Your task to perform on an android device: find snoozed emails in the gmail app Image 0: 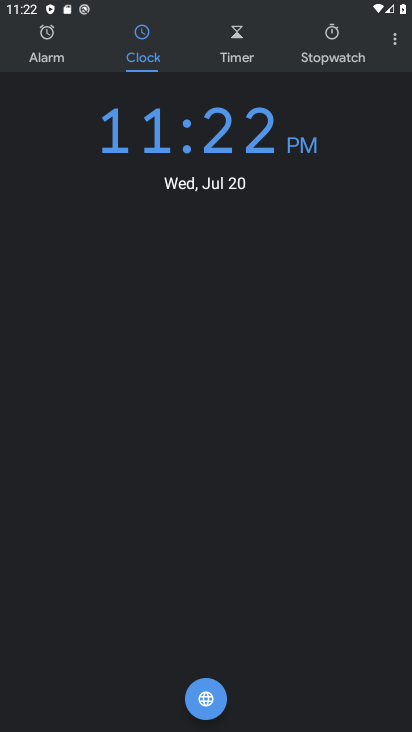
Step 0: press home button
Your task to perform on an android device: find snoozed emails in the gmail app Image 1: 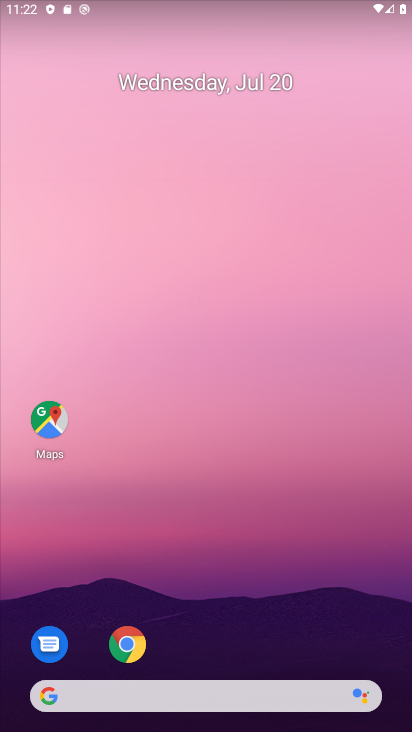
Step 1: drag from (115, 719) to (144, 215)
Your task to perform on an android device: find snoozed emails in the gmail app Image 2: 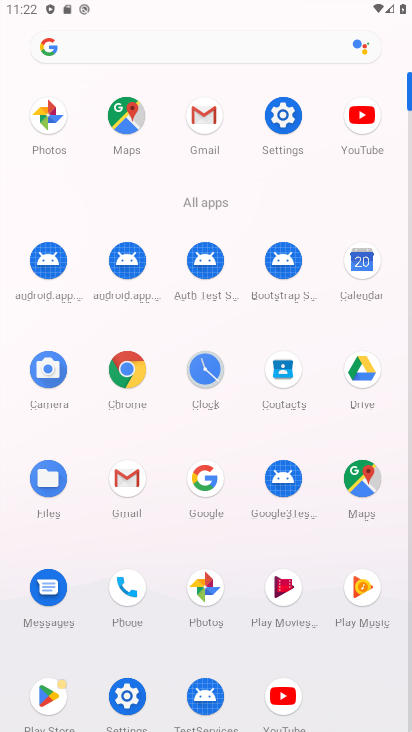
Step 2: click (203, 115)
Your task to perform on an android device: find snoozed emails in the gmail app Image 3: 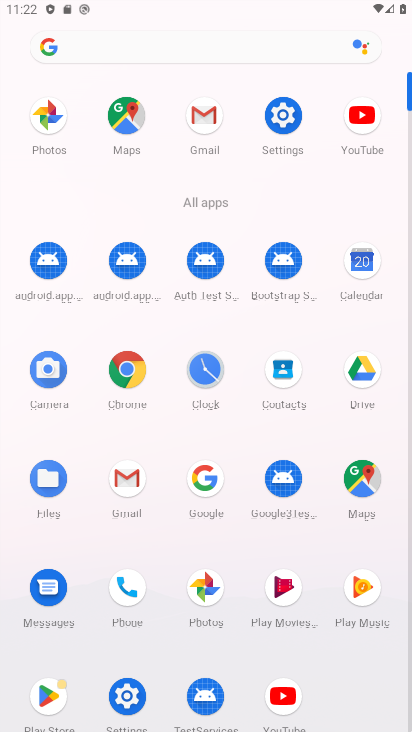
Step 3: click (203, 115)
Your task to perform on an android device: find snoozed emails in the gmail app Image 4: 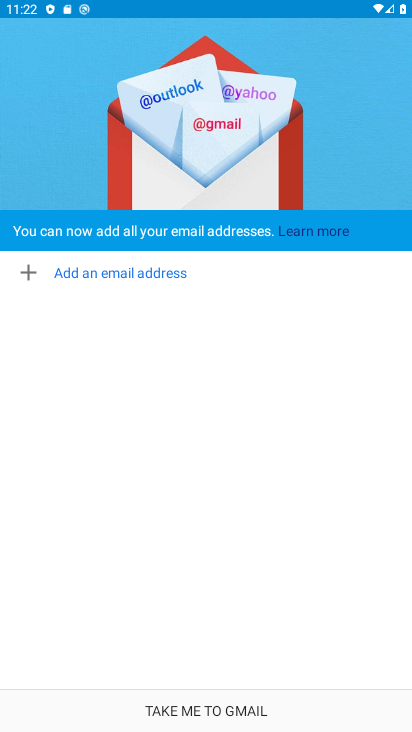
Step 4: click (223, 714)
Your task to perform on an android device: find snoozed emails in the gmail app Image 5: 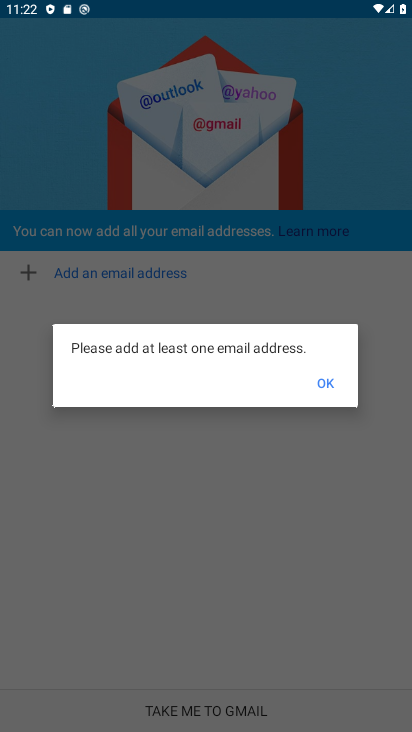
Step 5: click (320, 386)
Your task to perform on an android device: find snoozed emails in the gmail app Image 6: 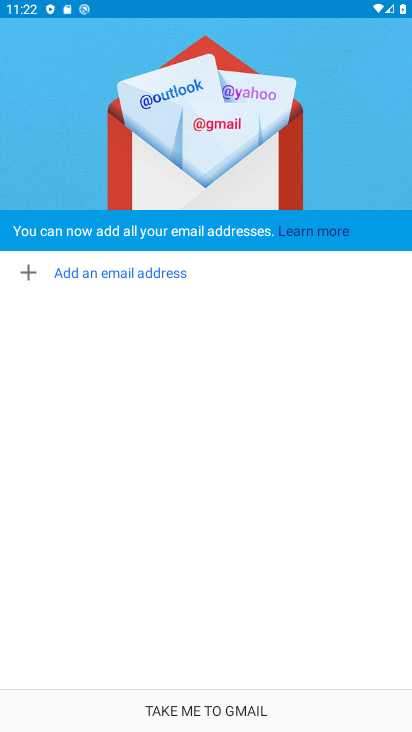
Step 6: click (137, 278)
Your task to perform on an android device: find snoozed emails in the gmail app Image 7: 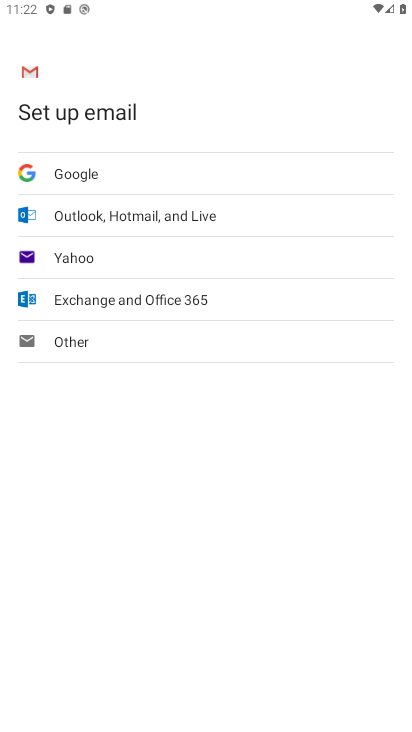
Step 7: click (128, 164)
Your task to perform on an android device: find snoozed emails in the gmail app Image 8: 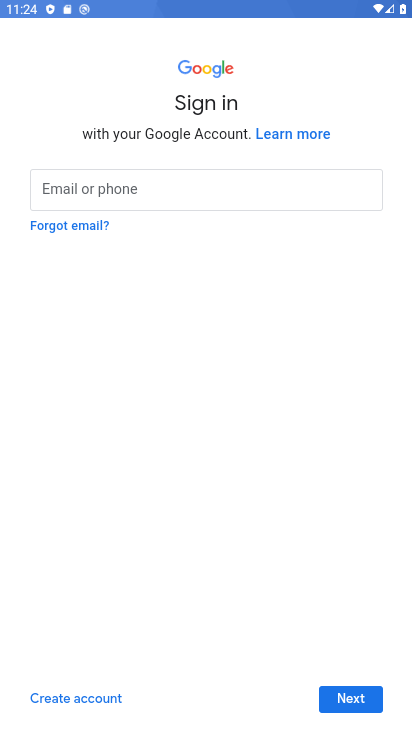
Step 8: task complete